Your task to perform on an android device: Open the map Image 0: 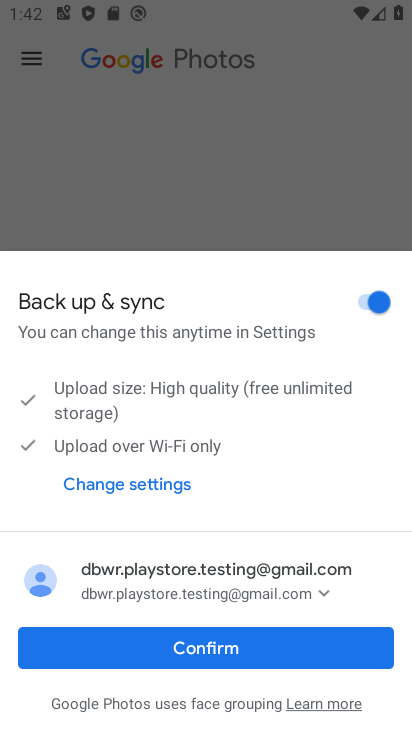
Step 0: press back button
Your task to perform on an android device: Open the map Image 1: 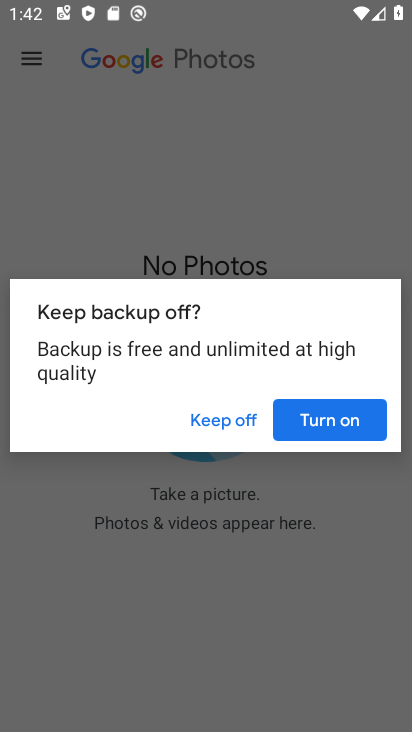
Step 1: press back button
Your task to perform on an android device: Open the map Image 2: 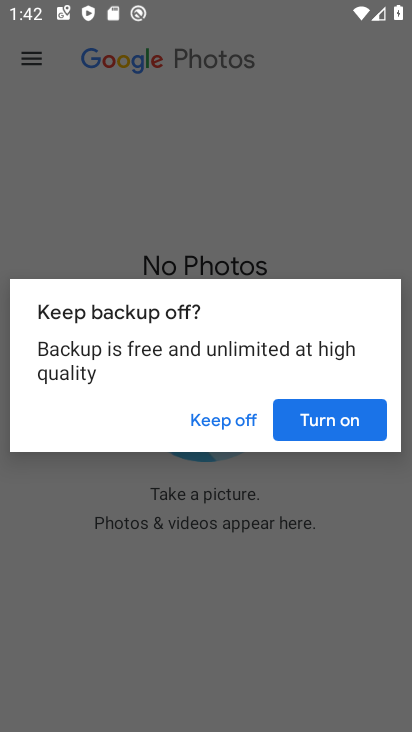
Step 2: press home button
Your task to perform on an android device: Open the map Image 3: 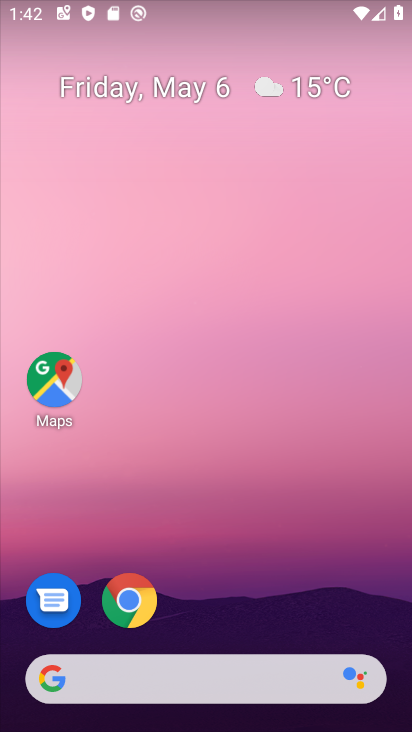
Step 3: drag from (319, 549) to (299, 3)
Your task to perform on an android device: Open the map Image 4: 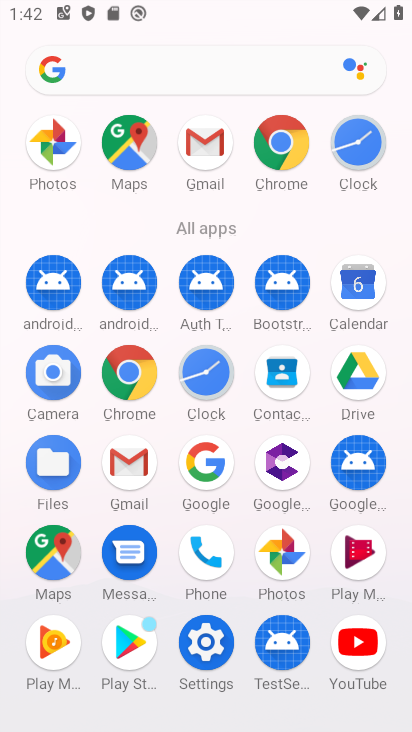
Step 4: drag from (5, 581) to (0, 205)
Your task to perform on an android device: Open the map Image 5: 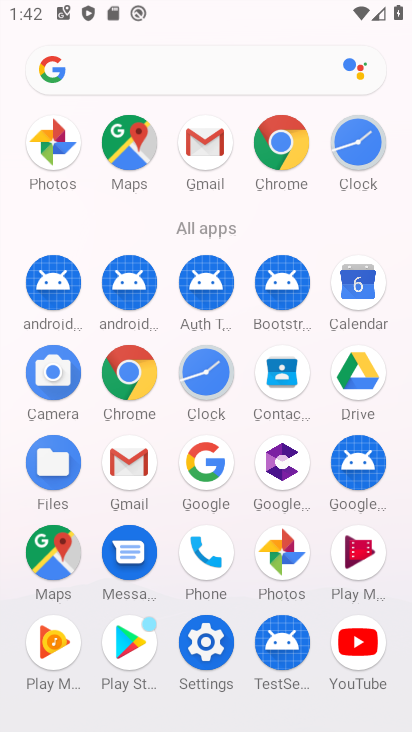
Step 5: click (54, 551)
Your task to perform on an android device: Open the map Image 6: 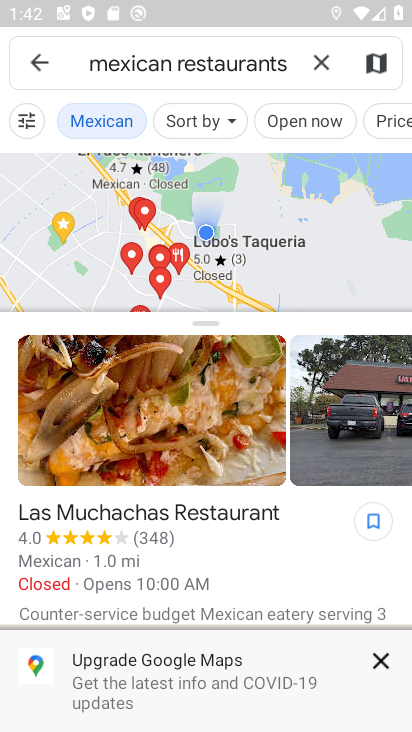
Step 6: click (44, 61)
Your task to perform on an android device: Open the map Image 7: 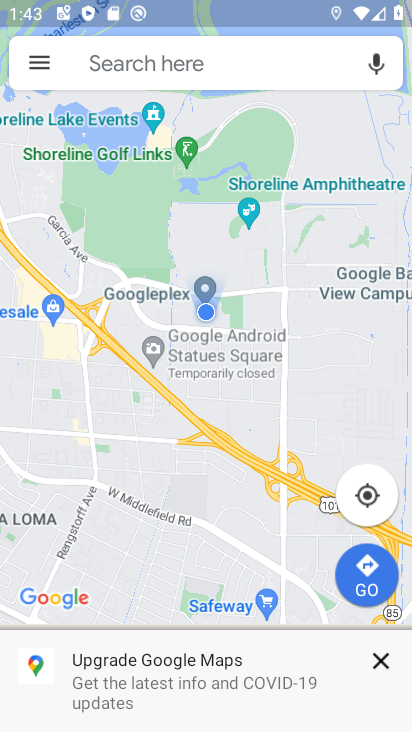
Step 7: task complete